Your task to perform on an android device: show emergency info Image 0: 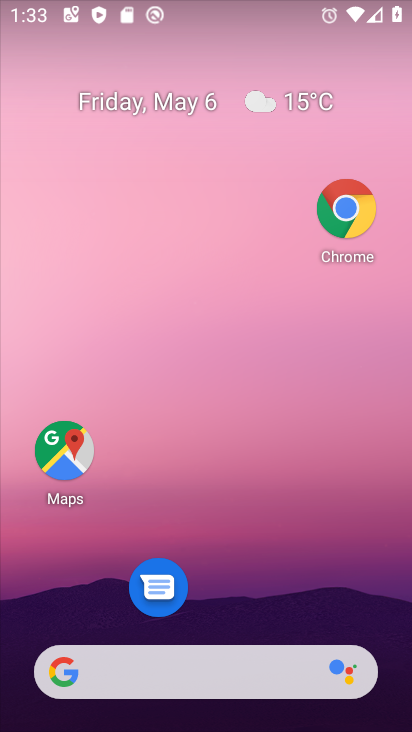
Step 0: drag from (226, 312) to (123, 2)
Your task to perform on an android device: show emergency info Image 1: 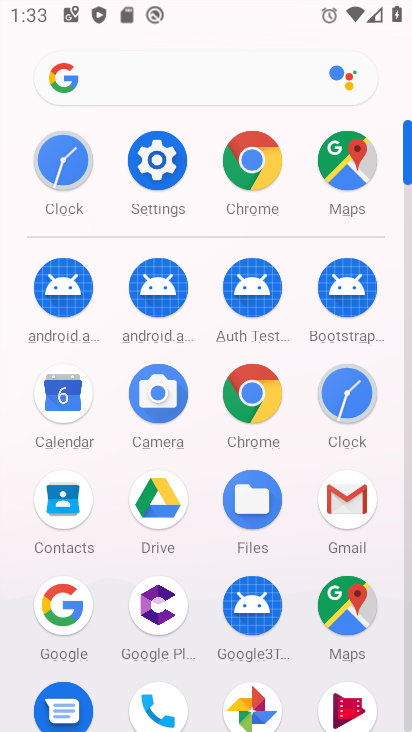
Step 1: click (151, 209)
Your task to perform on an android device: show emergency info Image 2: 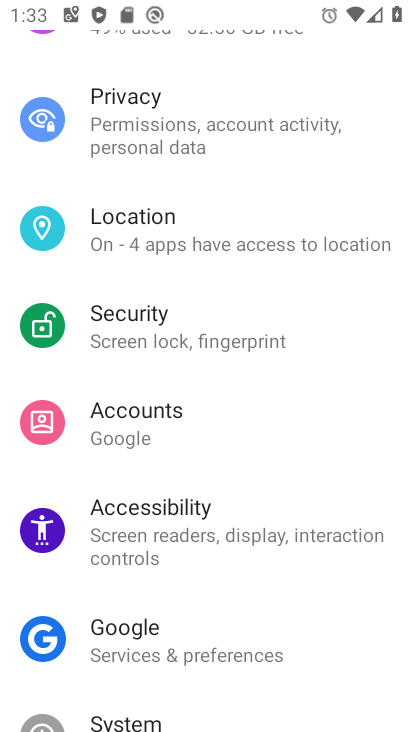
Step 2: drag from (193, 660) to (195, 301)
Your task to perform on an android device: show emergency info Image 3: 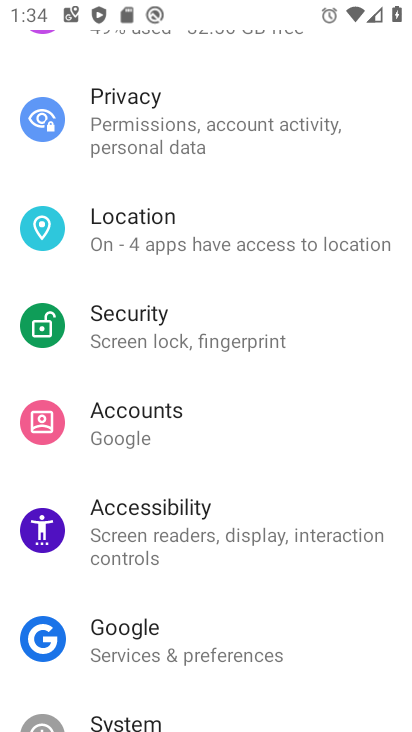
Step 3: drag from (206, 640) to (231, 323)
Your task to perform on an android device: show emergency info Image 4: 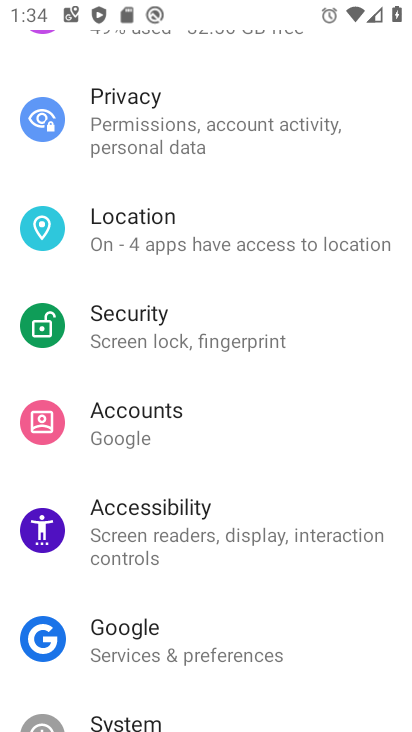
Step 4: drag from (130, 634) to (115, 285)
Your task to perform on an android device: show emergency info Image 5: 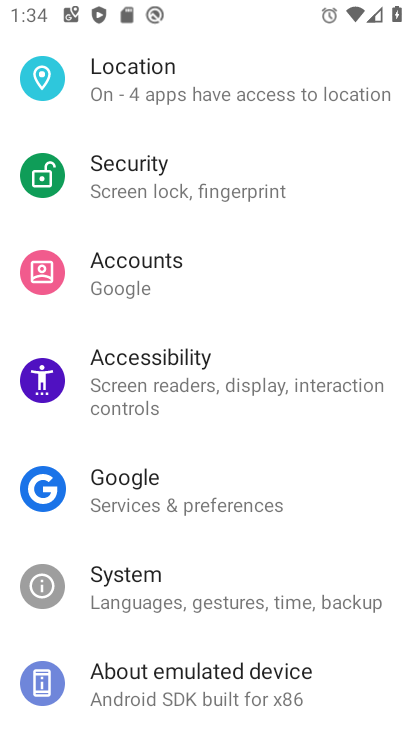
Step 5: click (189, 671)
Your task to perform on an android device: show emergency info Image 6: 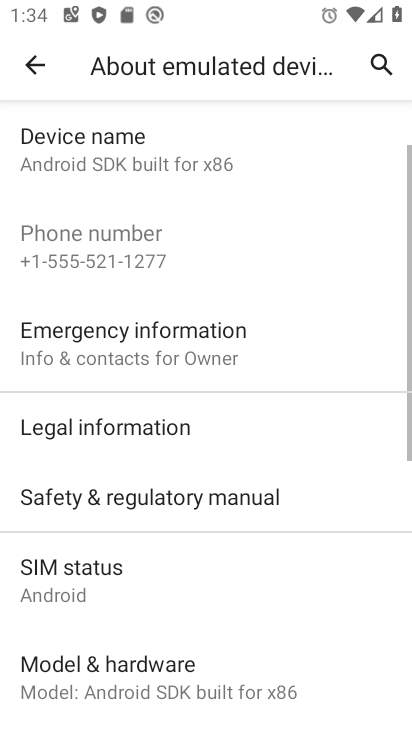
Step 6: click (119, 363)
Your task to perform on an android device: show emergency info Image 7: 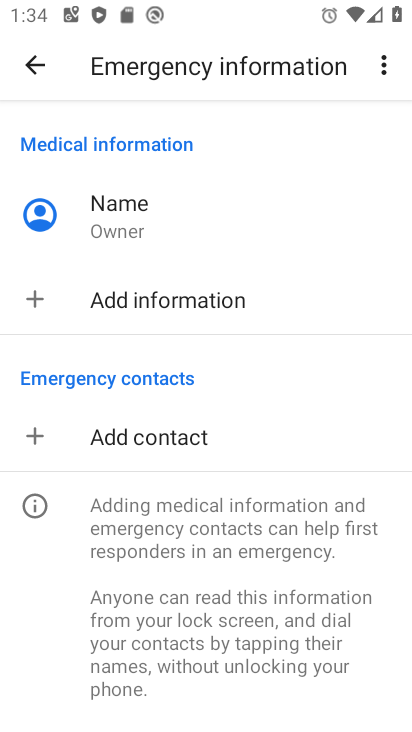
Step 7: task complete